Your task to perform on an android device: Open Chrome and go to settings Image 0: 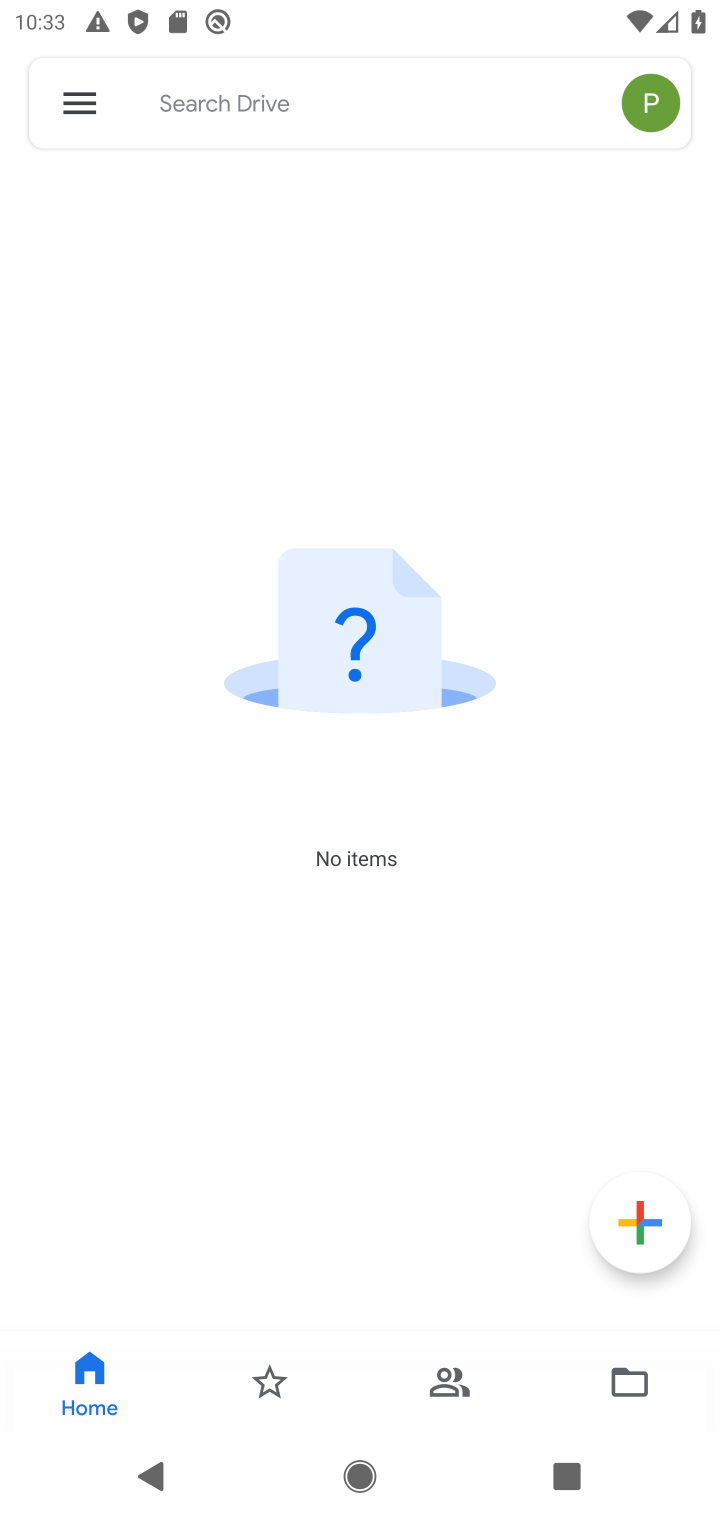
Step 0: press home button
Your task to perform on an android device: Open Chrome and go to settings Image 1: 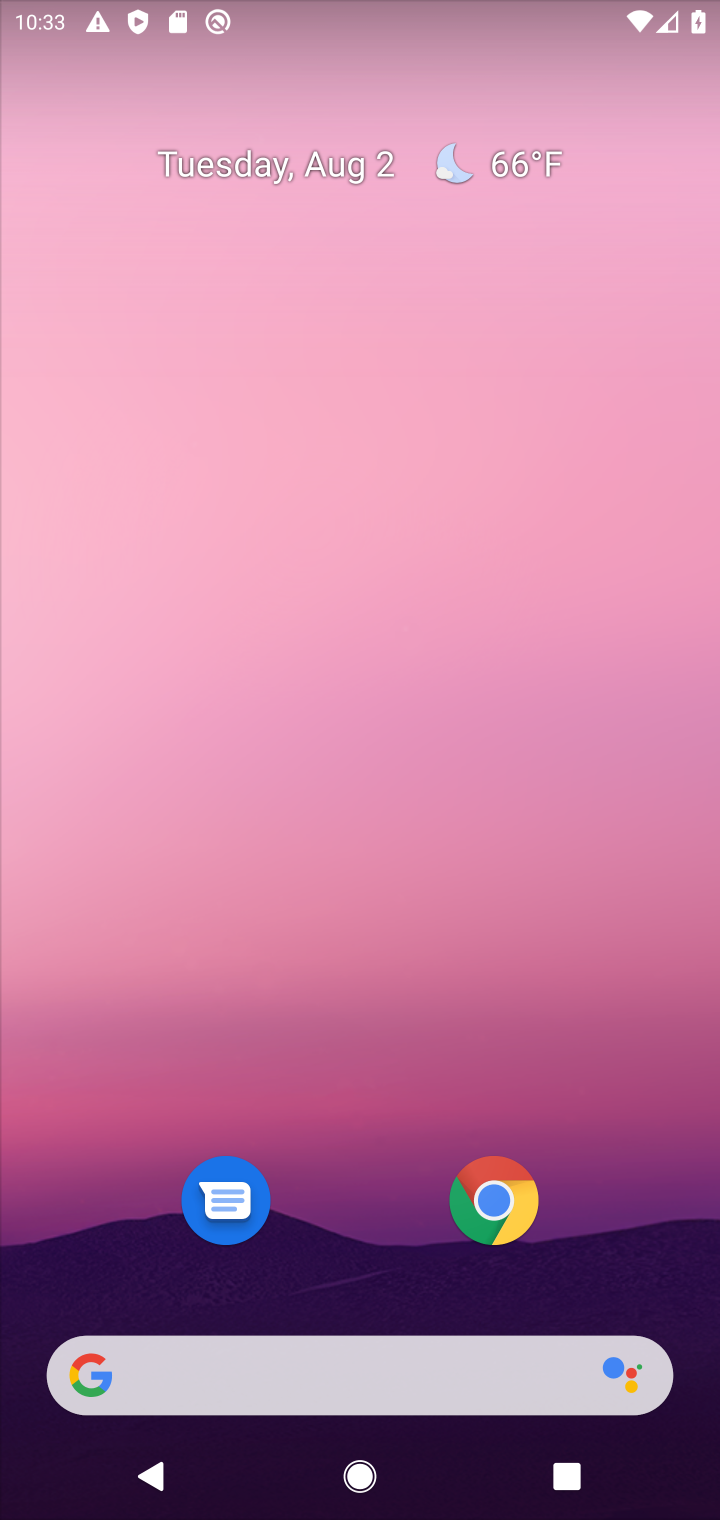
Step 1: click (496, 1201)
Your task to perform on an android device: Open Chrome and go to settings Image 2: 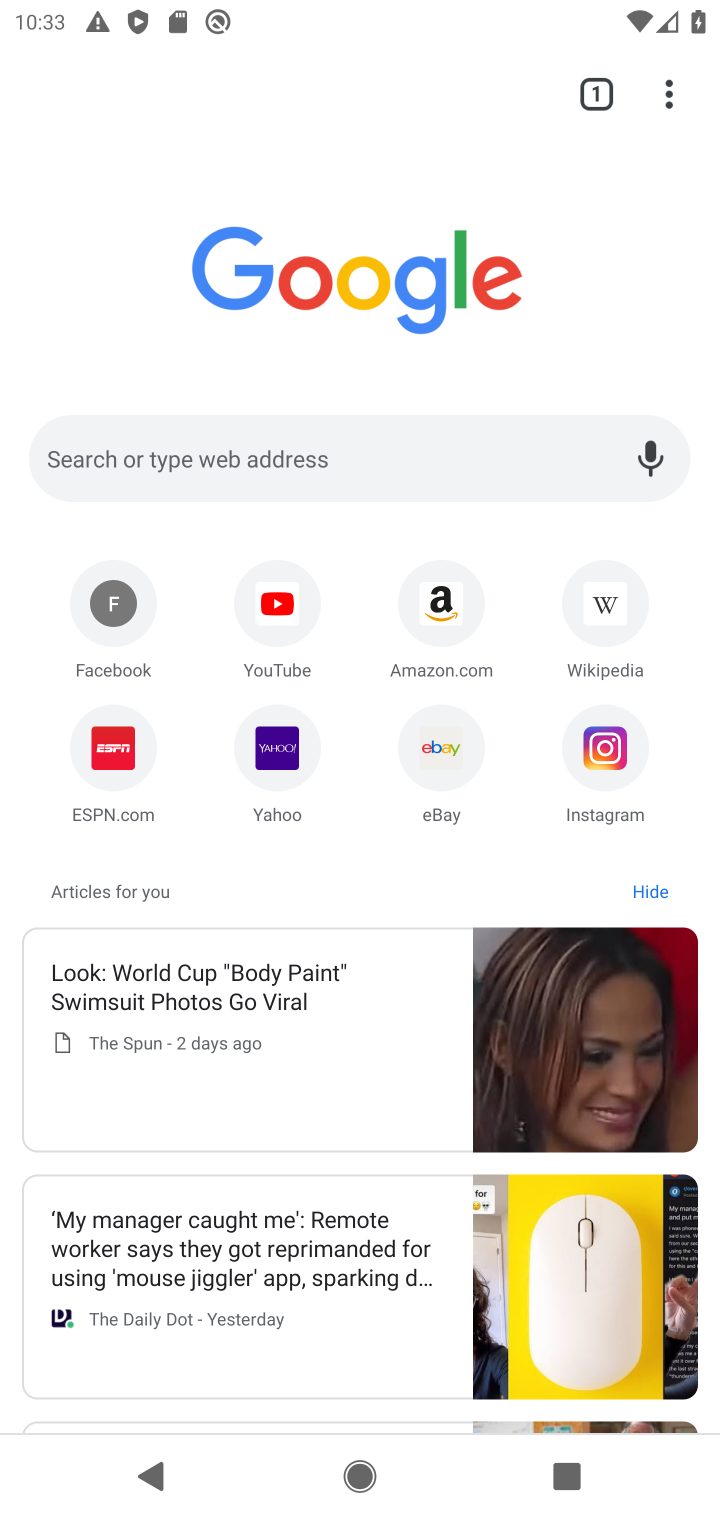
Step 2: click (669, 103)
Your task to perform on an android device: Open Chrome and go to settings Image 3: 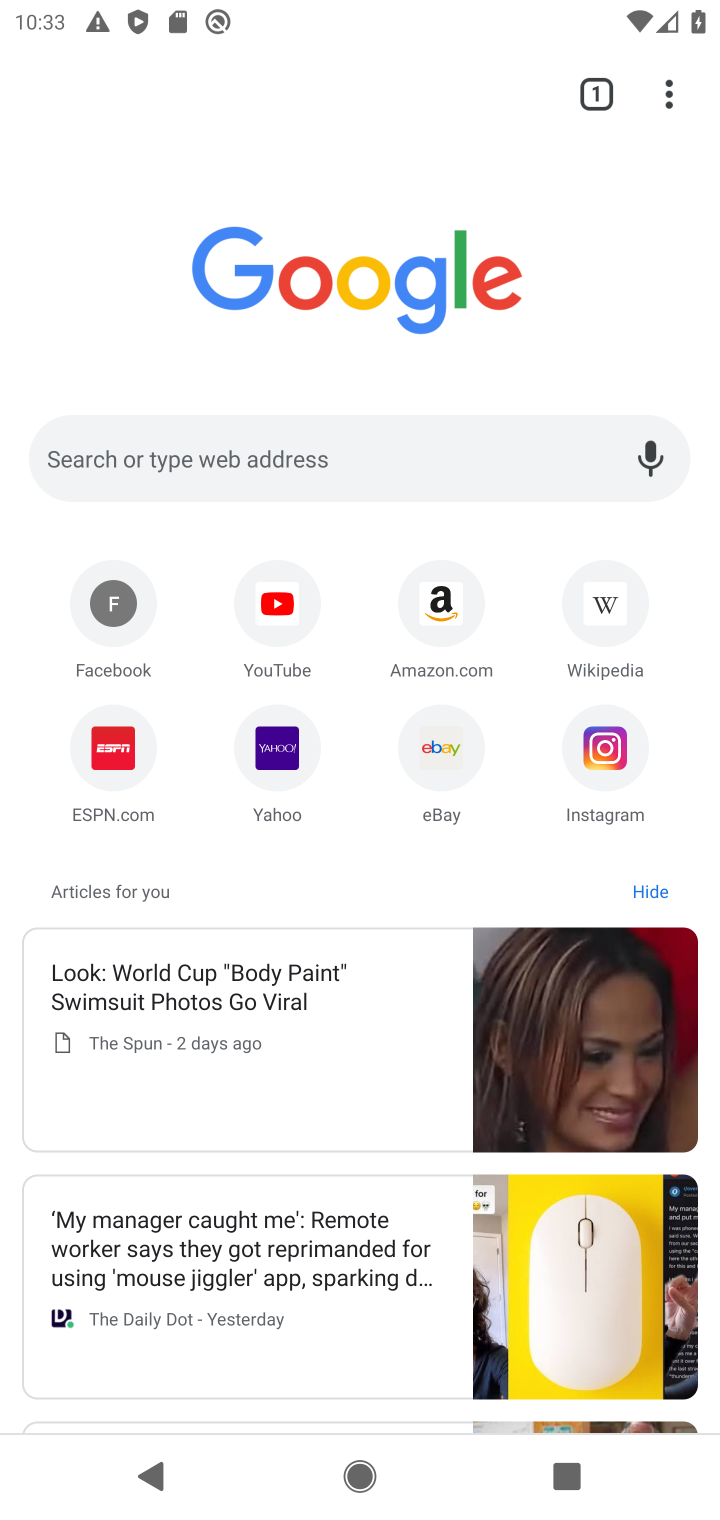
Step 3: click (669, 112)
Your task to perform on an android device: Open Chrome and go to settings Image 4: 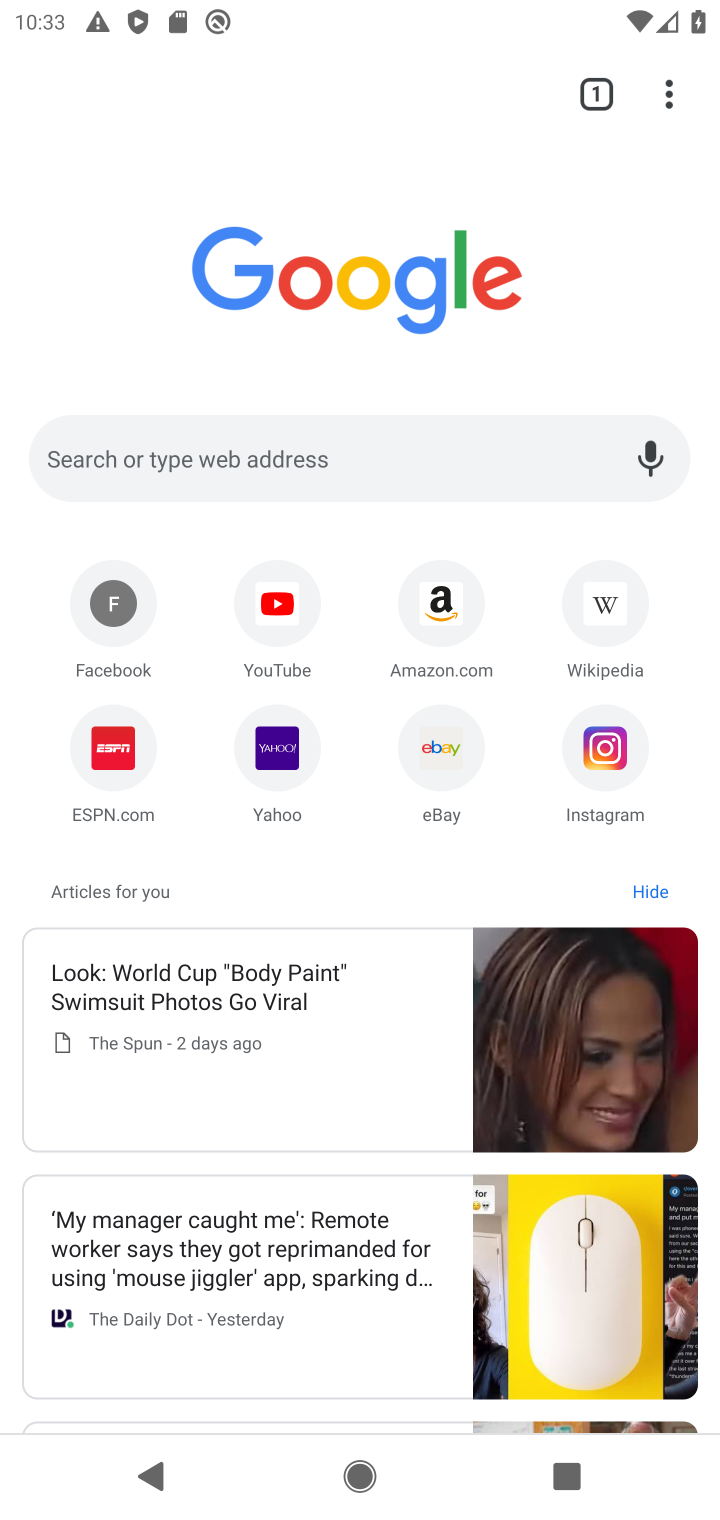
Step 4: click (669, 86)
Your task to perform on an android device: Open Chrome and go to settings Image 5: 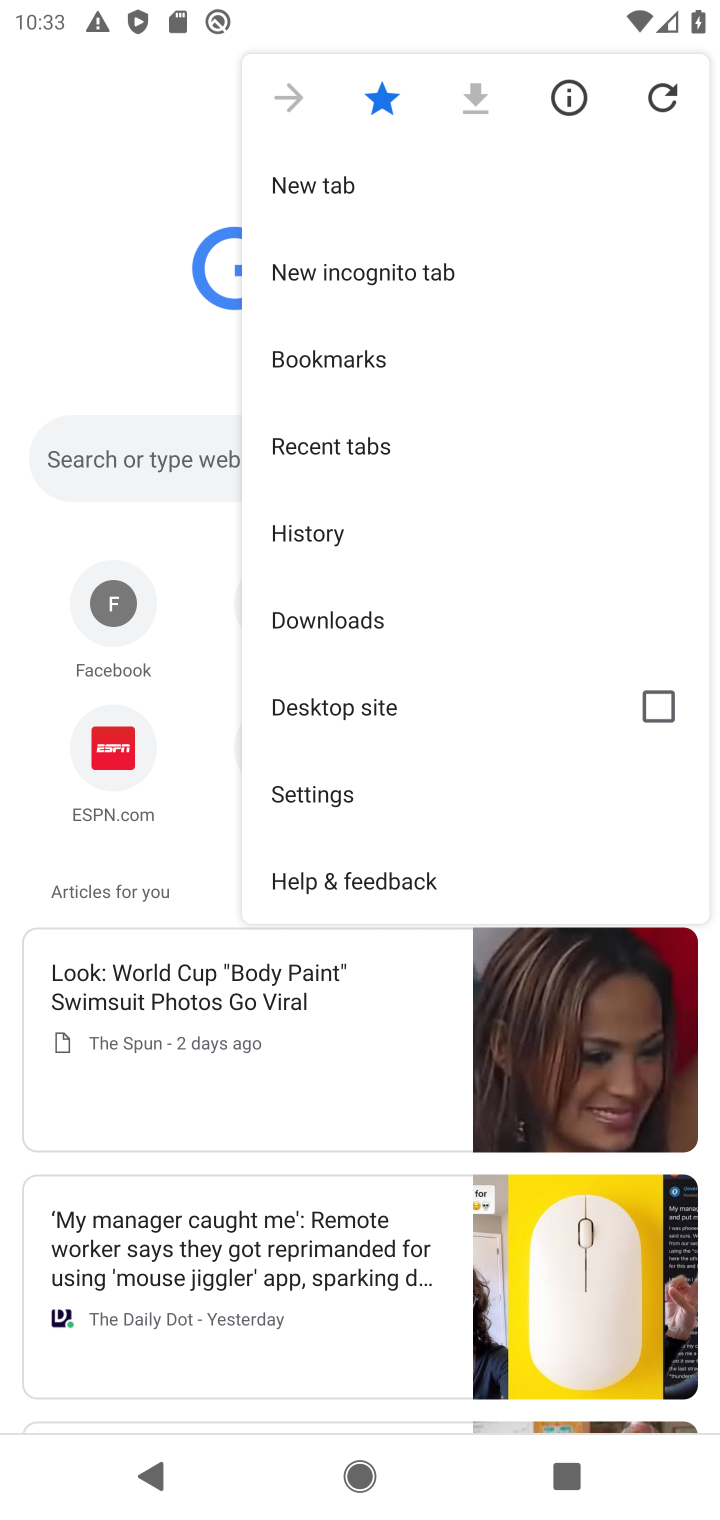
Step 5: click (322, 788)
Your task to perform on an android device: Open Chrome and go to settings Image 6: 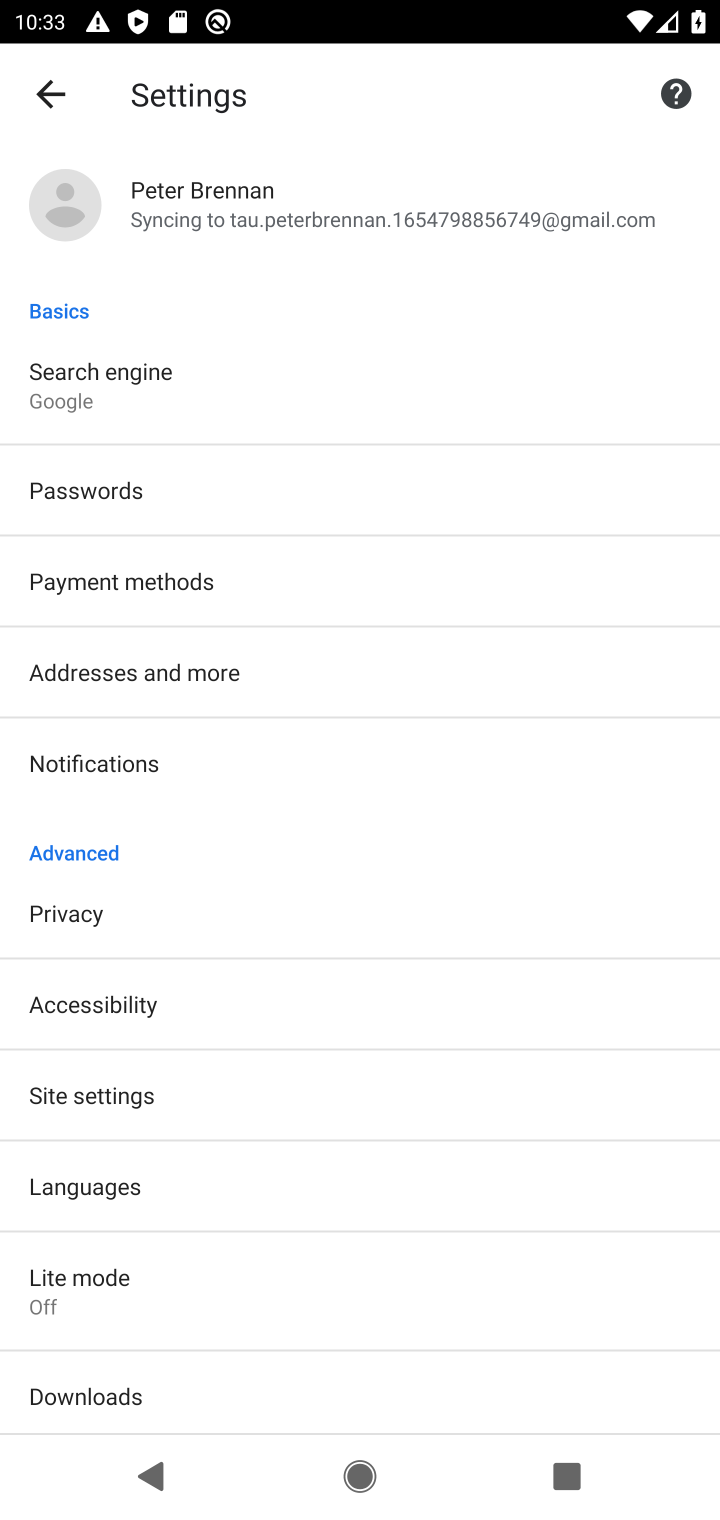
Step 6: task complete